Your task to perform on an android device: set the timer Image 0: 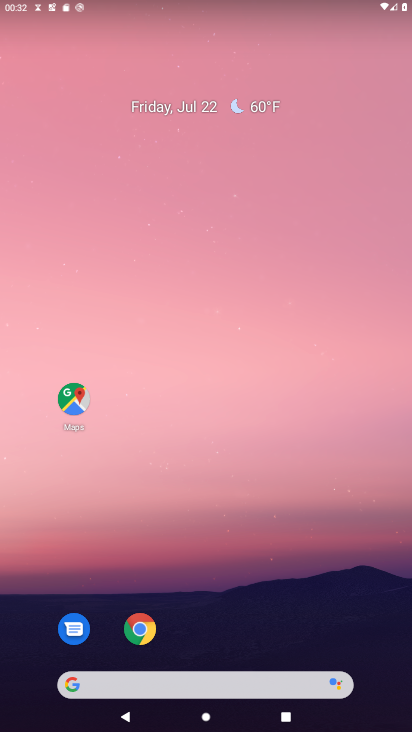
Step 0: drag from (163, 669) to (223, 141)
Your task to perform on an android device: set the timer Image 1: 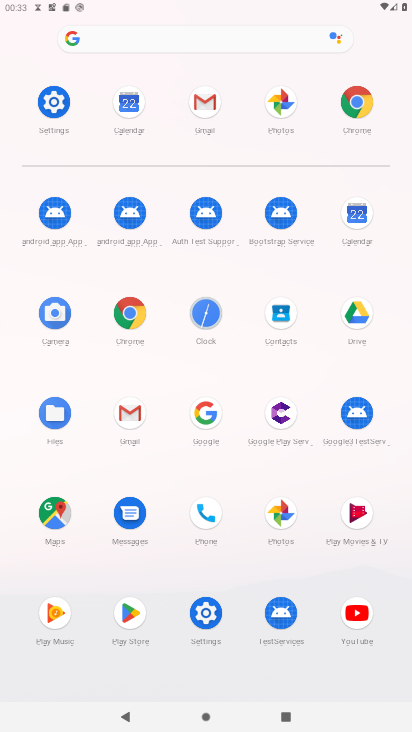
Step 1: click (192, 310)
Your task to perform on an android device: set the timer Image 2: 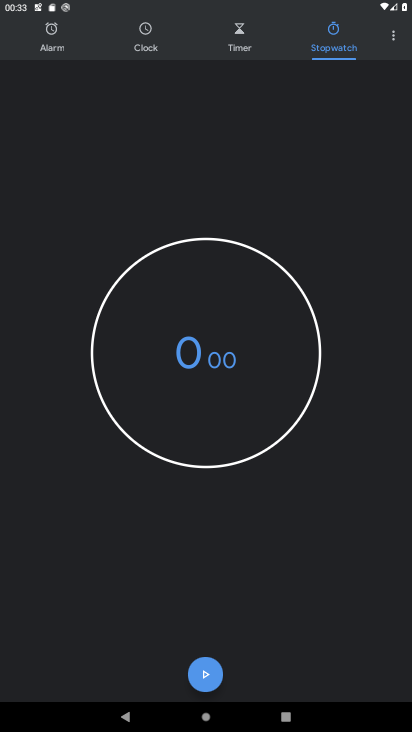
Step 2: click (252, 27)
Your task to perform on an android device: set the timer Image 3: 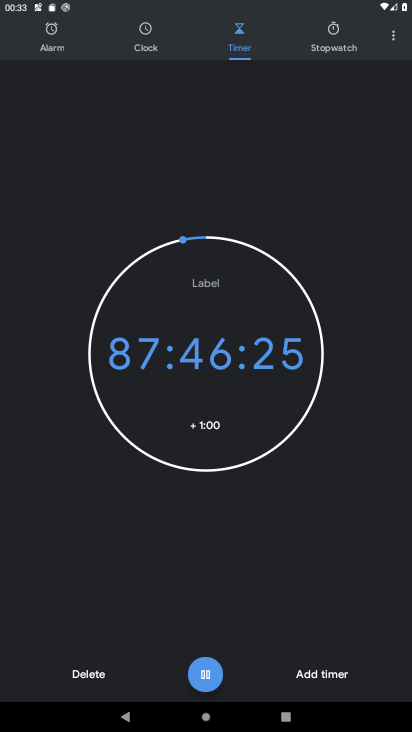
Step 3: task complete